Your task to perform on an android device: visit the assistant section in the google photos Image 0: 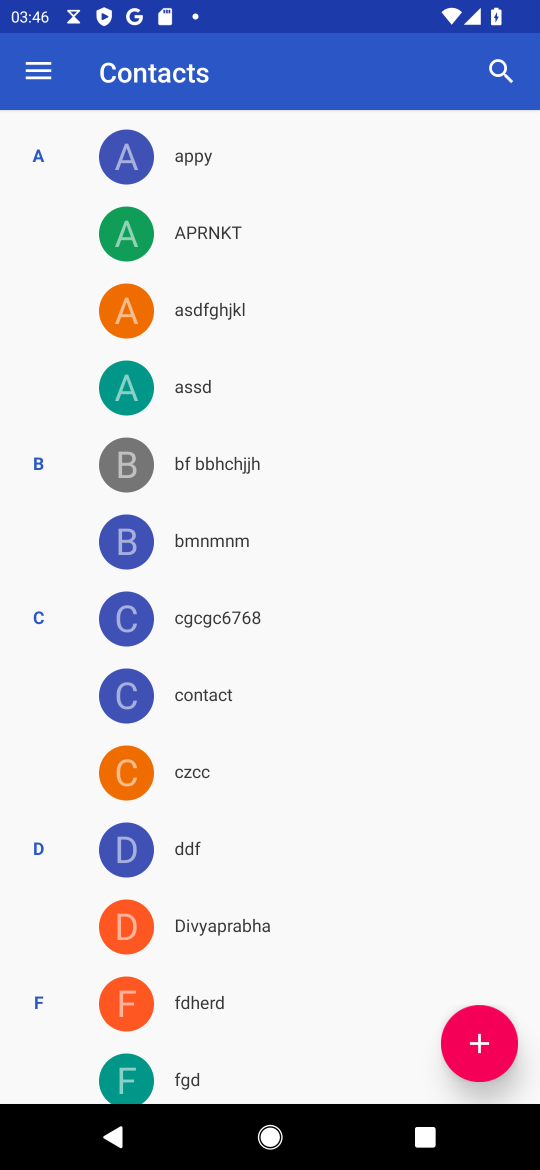
Step 0: press home button
Your task to perform on an android device: visit the assistant section in the google photos Image 1: 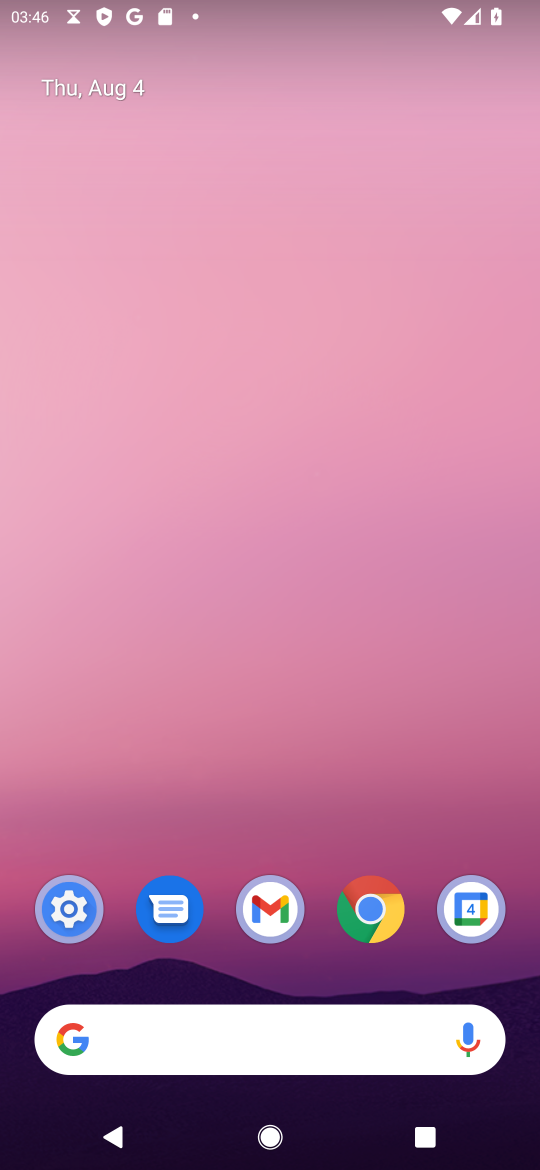
Step 1: drag from (265, 1032) to (353, 351)
Your task to perform on an android device: visit the assistant section in the google photos Image 2: 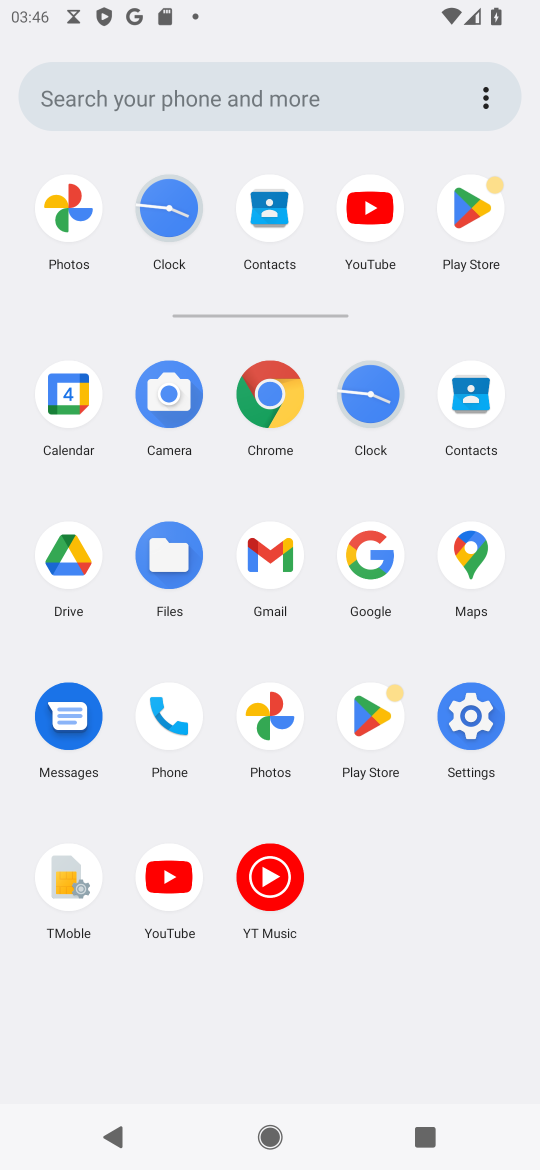
Step 2: click (87, 224)
Your task to perform on an android device: visit the assistant section in the google photos Image 3: 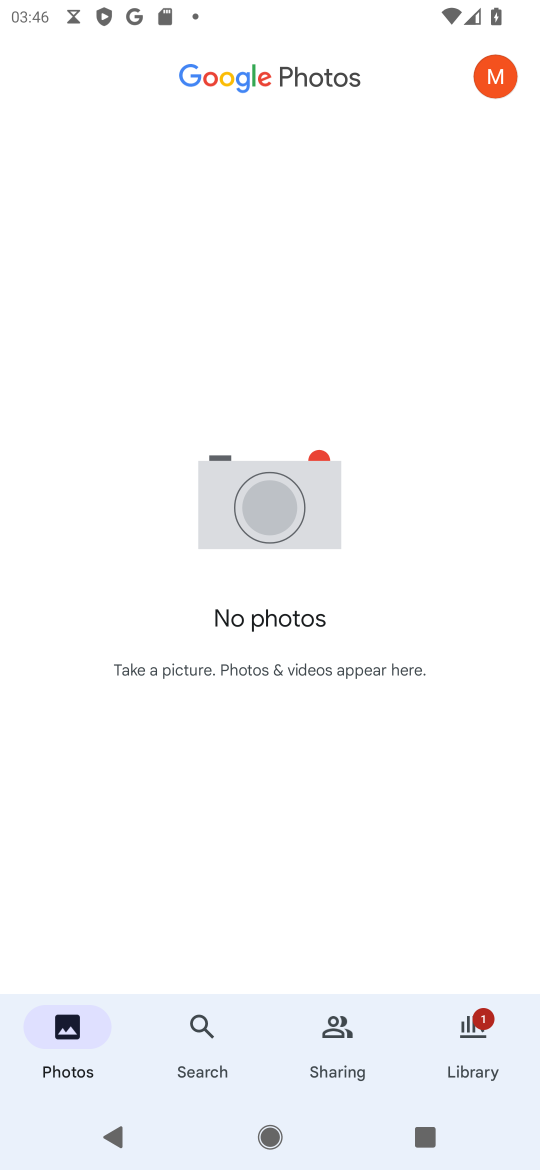
Step 3: click (466, 1060)
Your task to perform on an android device: visit the assistant section in the google photos Image 4: 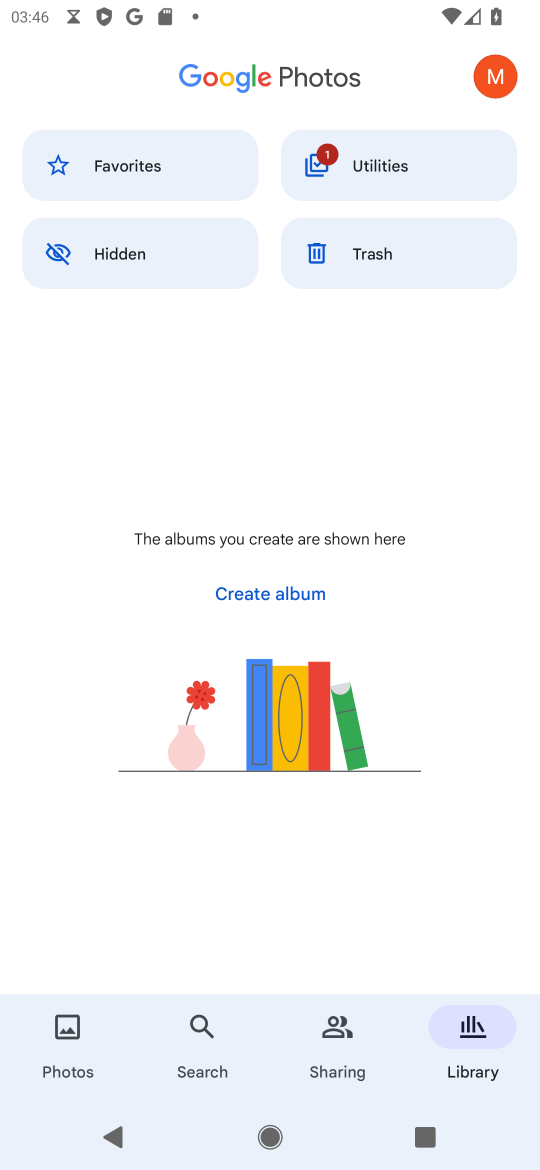
Step 4: task complete